Your task to perform on an android device: Open Maps and search for coffee Image 0: 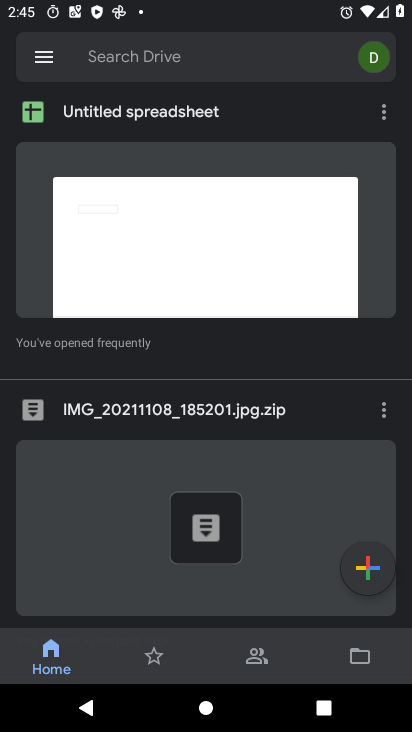
Step 0: press home button
Your task to perform on an android device: Open Maps and search for coffee Image 1: 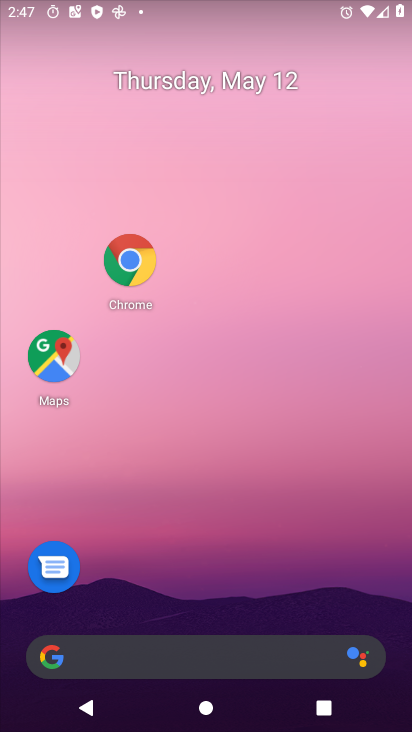
Step 1: click (68, 341)
Your task to perform on an android device: Open Maps and search for coffee Image 2: 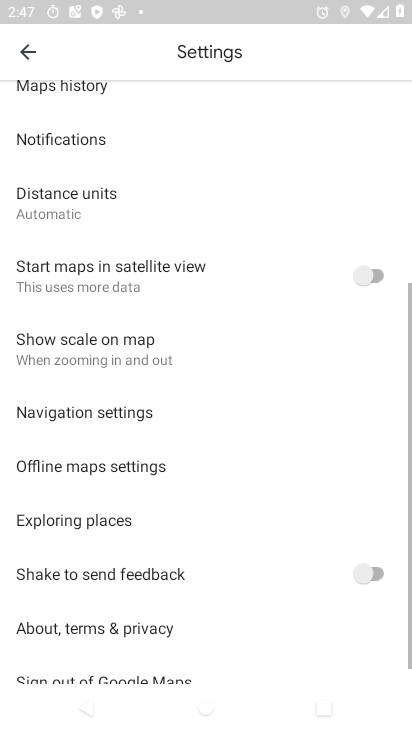
Step 2: click (27, 54)
Your task to perform on an android device: Open Maps and search for coffee Image 3: 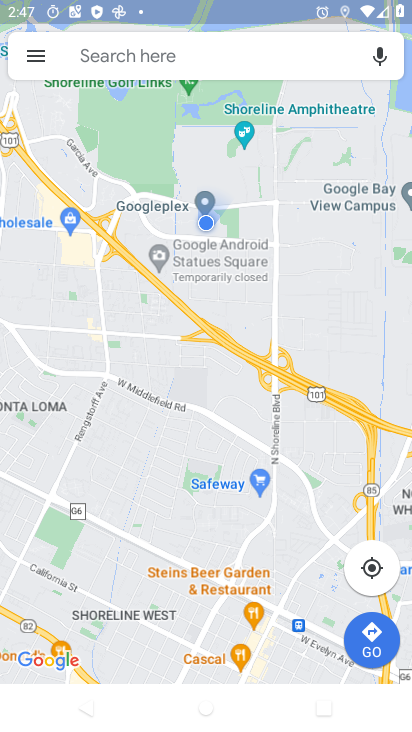
Step 3: click (183, 65)
Your task to perform on an android device: Open Maps and search for coffee Image 4: 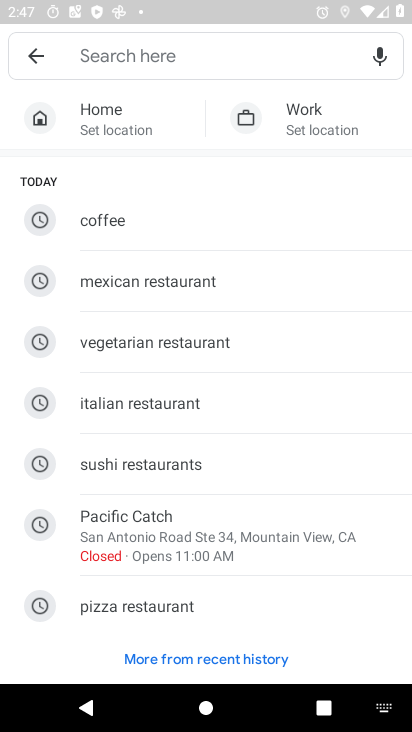
Step 4: click (113, 219)
Your task to perform on an android device: Open Maps and search for coffee Image 5: 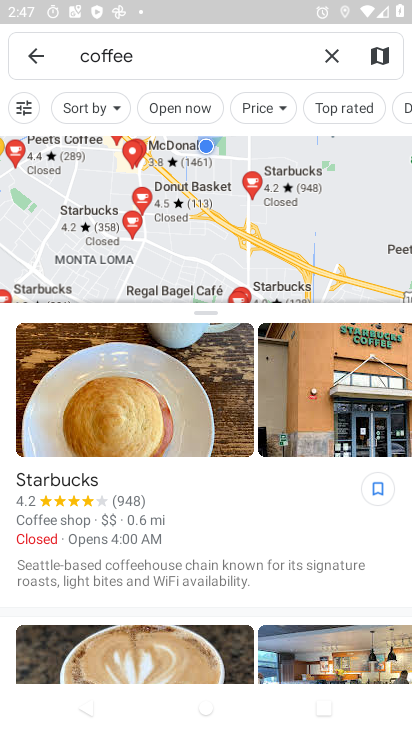
Step 5: task complete